Your task to perform on an android device: Open Google Chrome Image 0: 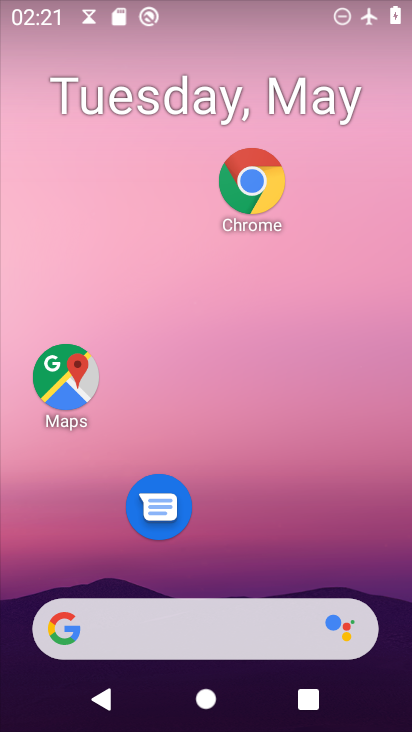
Step 0: drag from (241, 494) to (283, 152)
Your task to perform on an android device: Open Google Chrome Image 1: 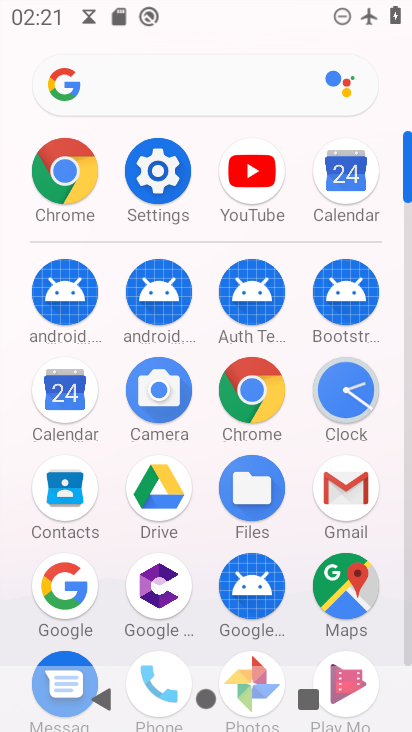
Step 1: click (259, 373)
Your task to perform on an android device: Open Google Chrome Image 2: 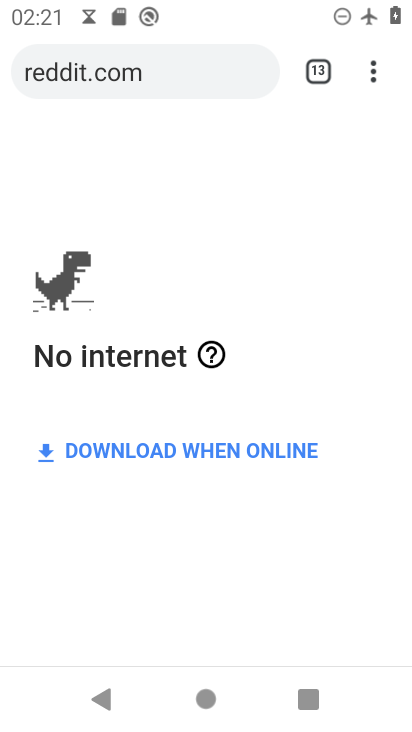
Step 2: task complete